Your task to perform on an android device: Check the weather Image 0: 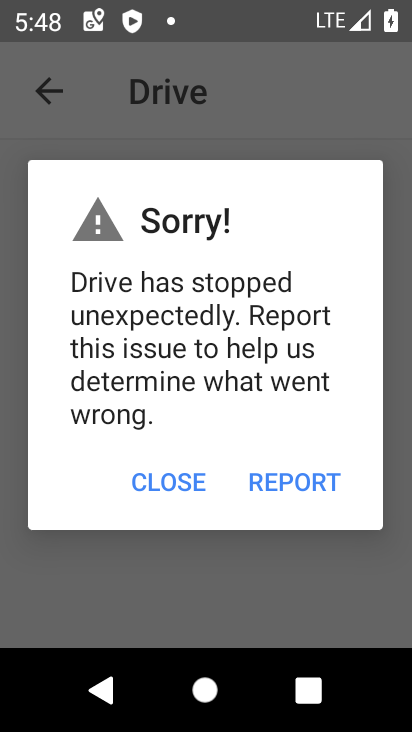
Step 0: press home button
Your task to perform on an android device: Check the weather Image 1: 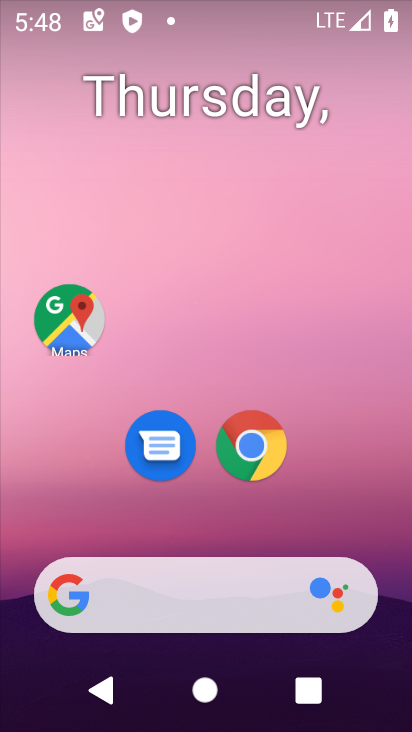
Step 1: click (262, 440)
Your task to perform on an android device: Check the weather Image 2: 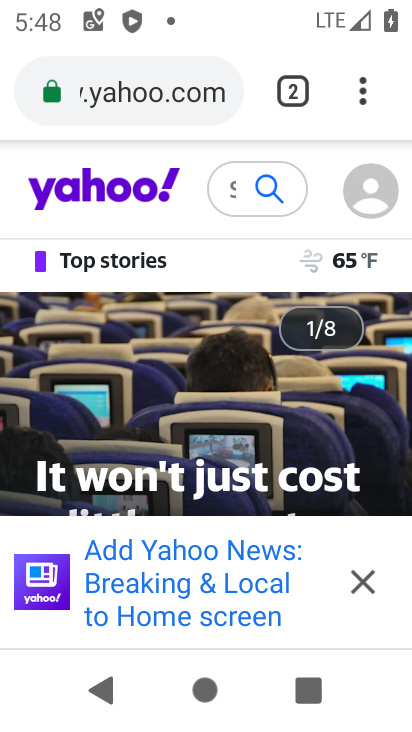
Step 2: drag from (368, 88) to (201, 177)
Your task to perform on an android device: Check the weather Image 3: 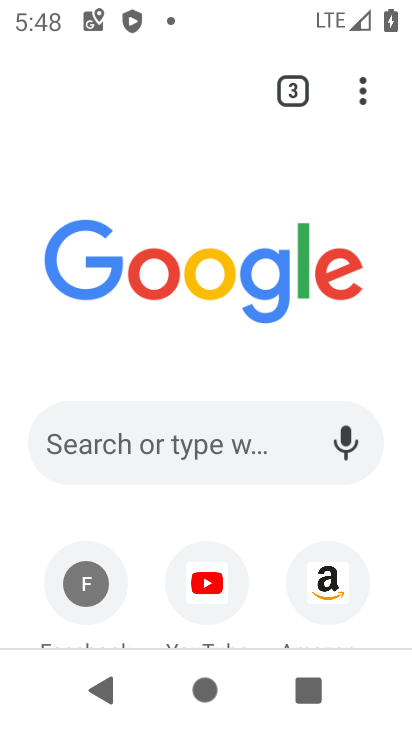
Step 3: click (231, 447)
Your task to perform on an android device: Check the weather Image 4: 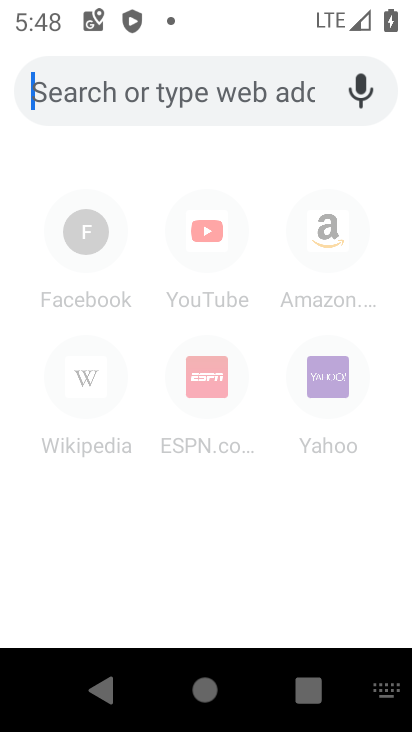
Step 4: type "Check the weather"
Your task to perform on an android device: Check the weather Image 5: 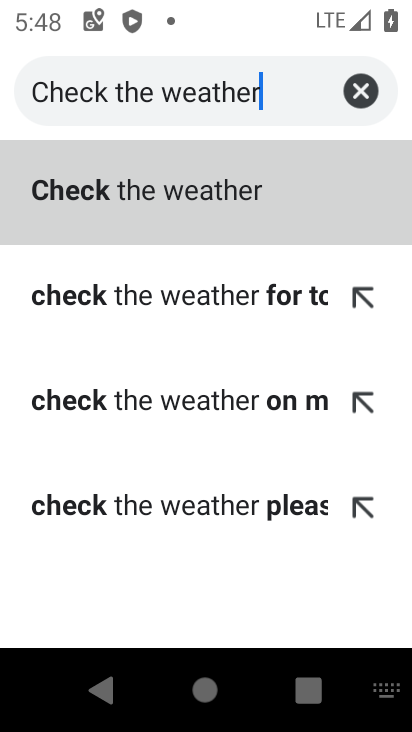
Step 5: click (200, 190)
Your task to perform on an android device: Check the weather Image 6: 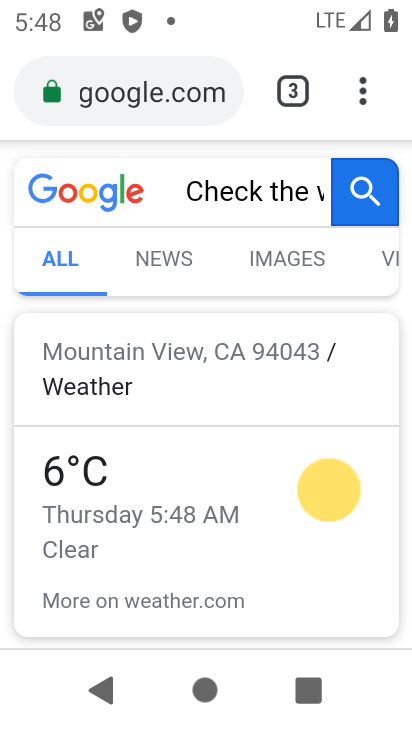
Step 6: task complete